Your task to perform on an android device: Show me the alarms in the clock app Image 0: 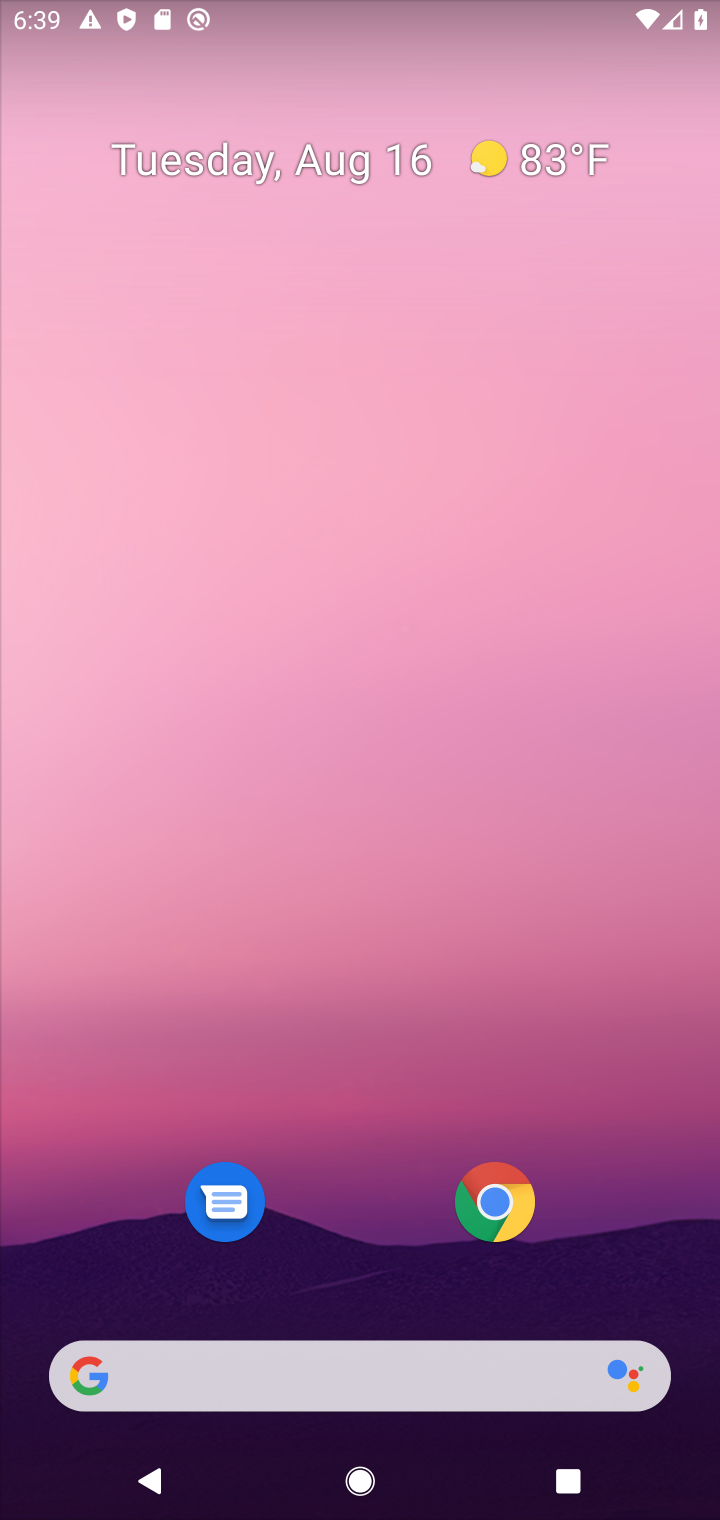
Step 0: drag from (628, 1303) to (222, 61)
Your task to perform on an android device: Show me the alarms in the clock app Image 1: 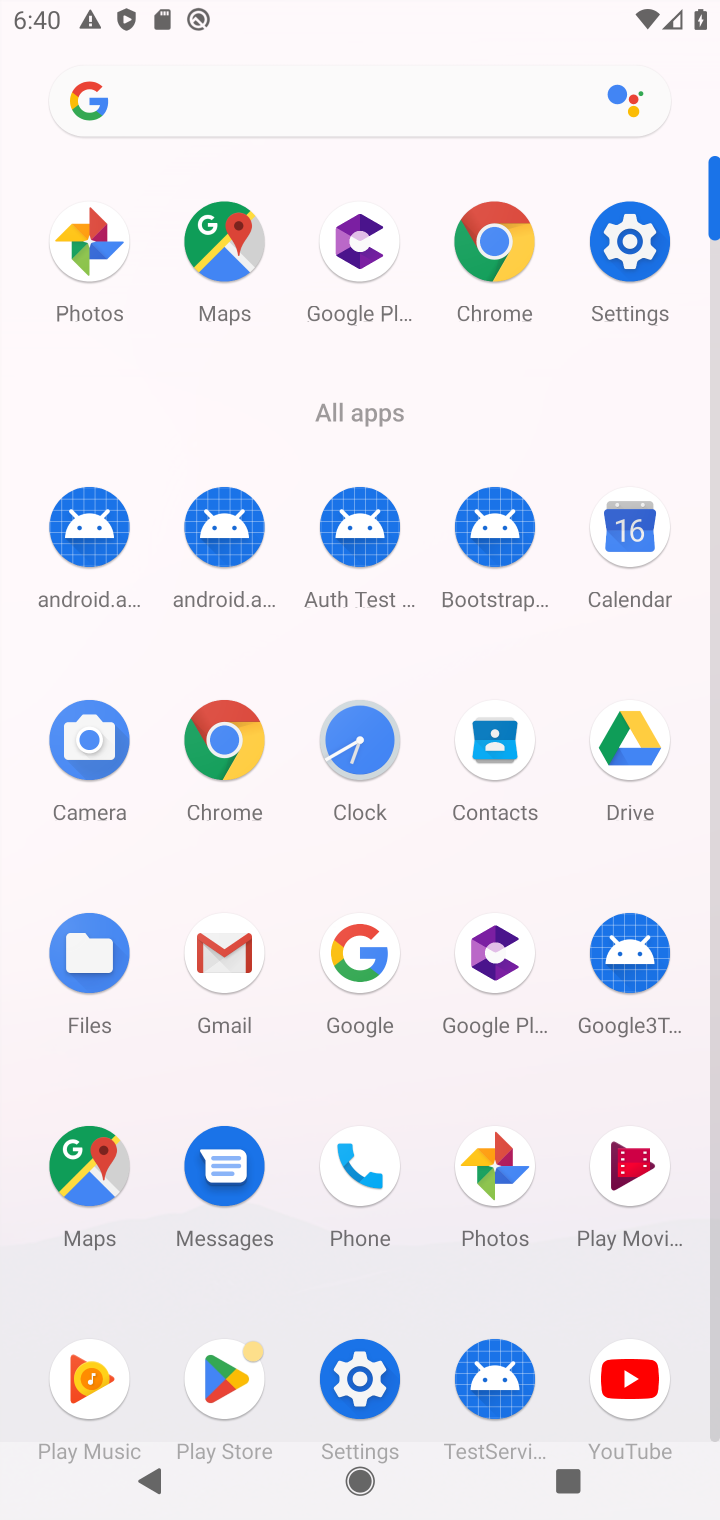
Step 1: click (355, 710)
Your task to perform on an android device: Show me the alarms in the clock app Image 2: 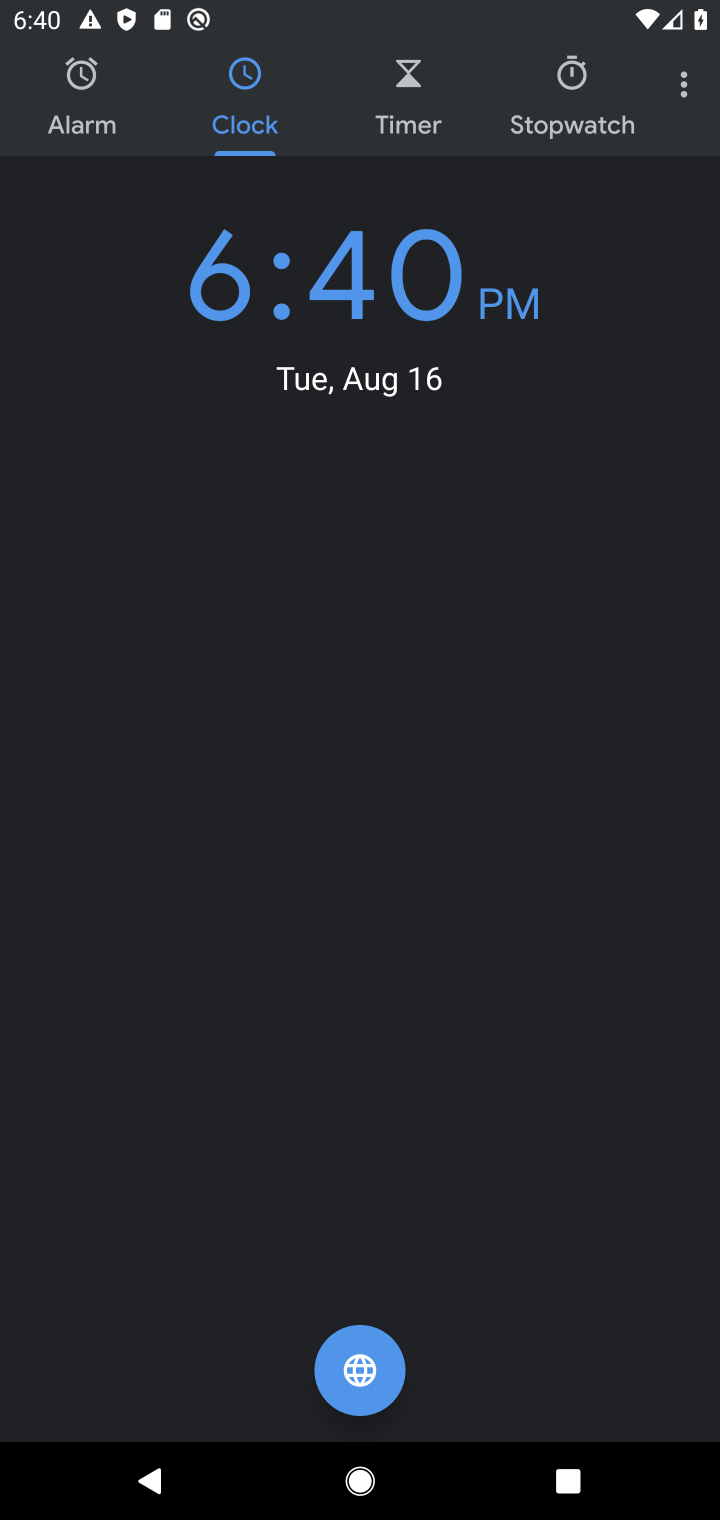
Step 2: click (96, 93)
Your task to perform on an android device: Show me the alarms in the clock app Image 3: 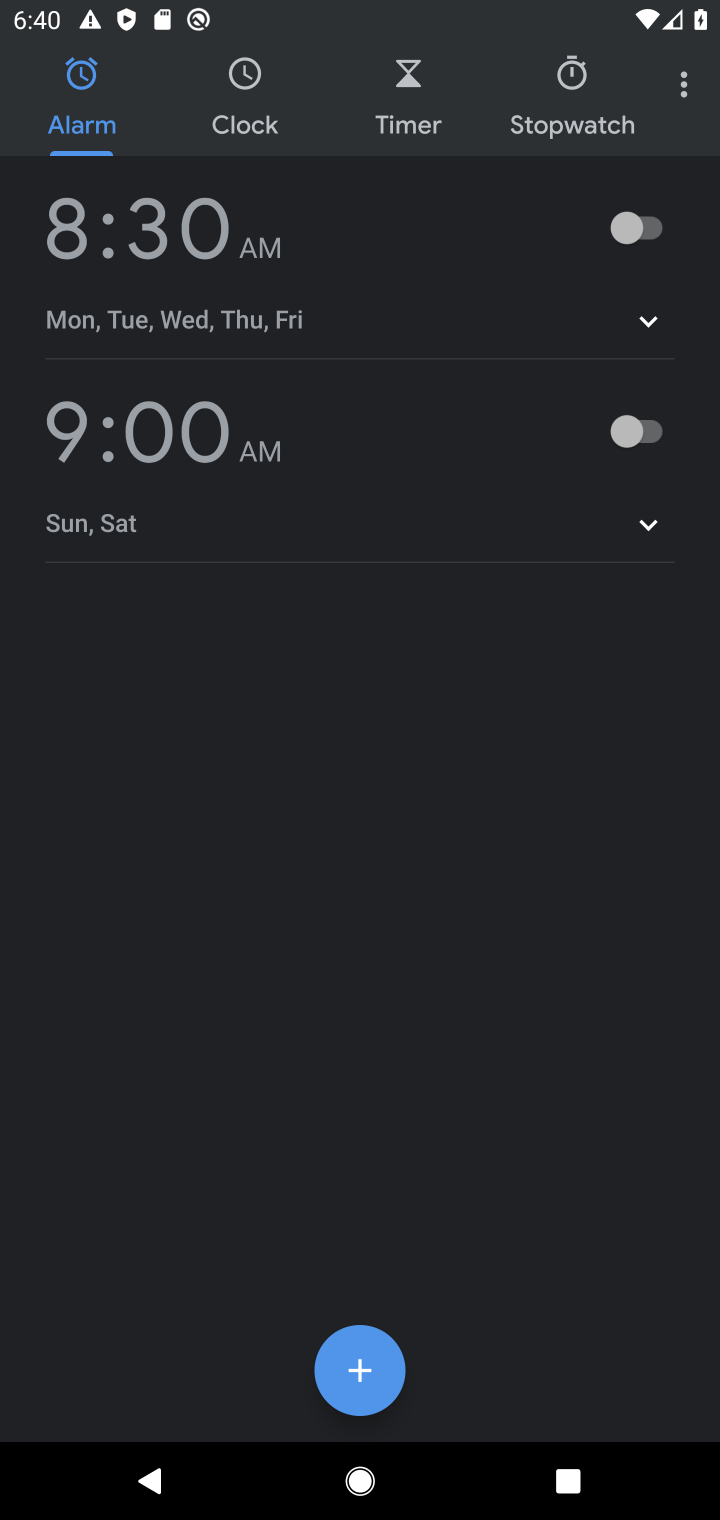
Step 3: click (656, 232)
Your task to perform on an android device: Show me the alarms in the clock app Image 4: 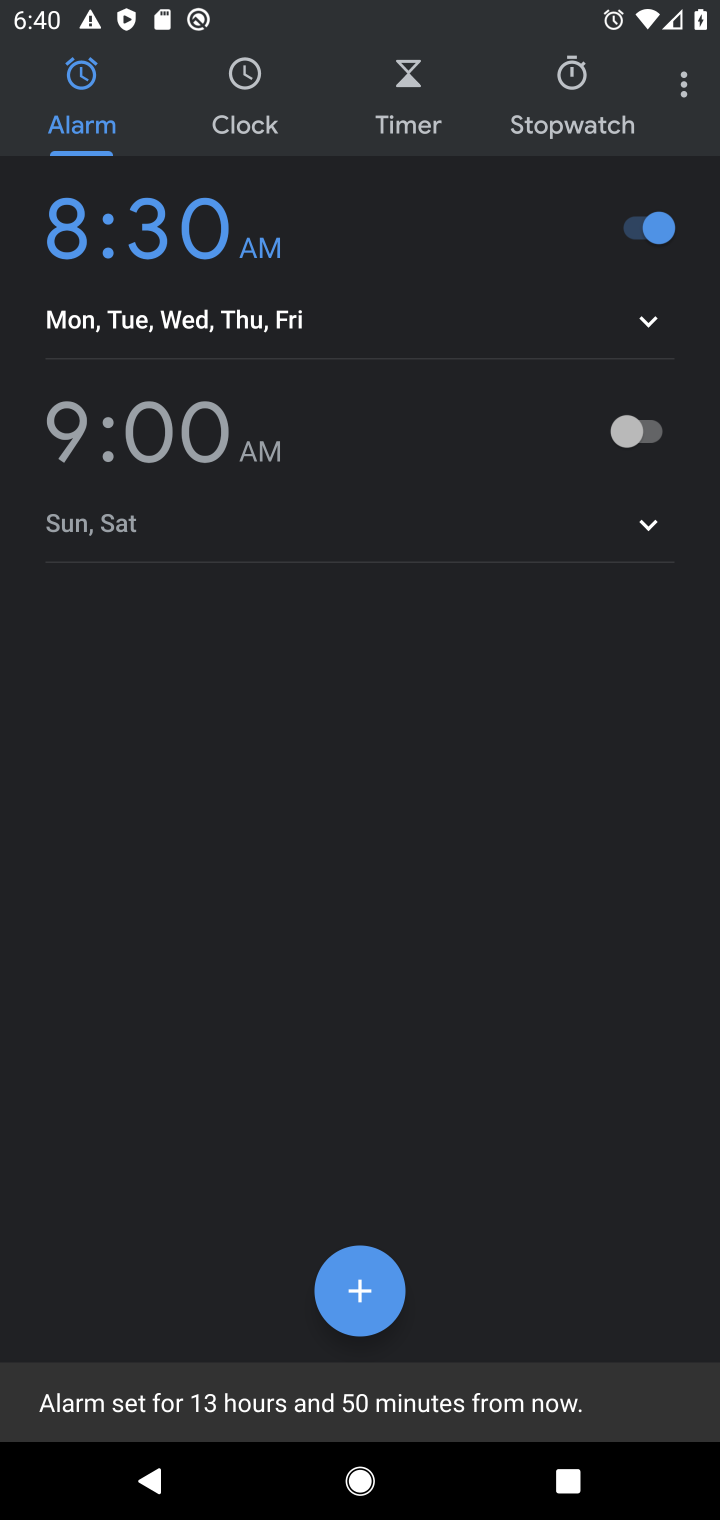
Step 4: task complete